Your task to perform on an android device: check out phone information Image 0: 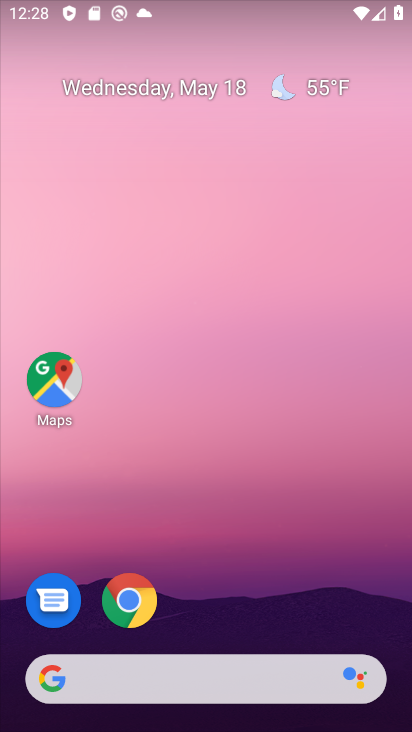
Step 0: drag from (231, 687) to (194, 41)
Your task to perform on an android device: check out phone information Image 1: 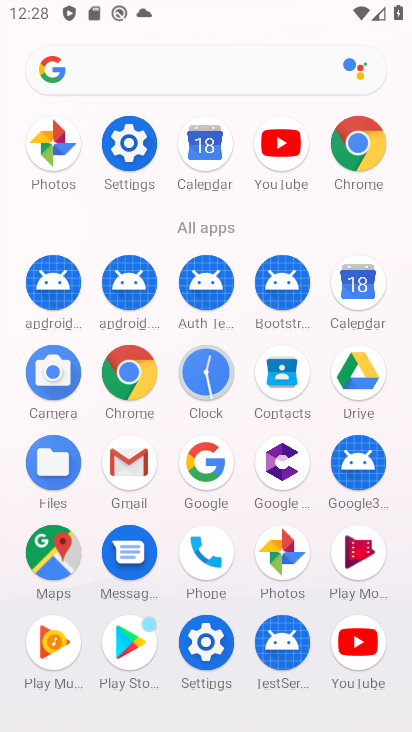
Step 1: click (124, 164)
Your task to perform on an android device: check out phone information Image 2: 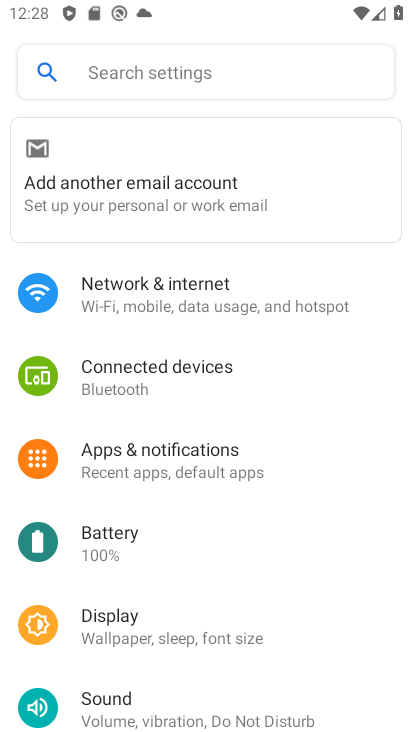
Step 2: drag from (229, 575) to (148, 24)
Your task to perform on an android device: check out phone information Image 3: 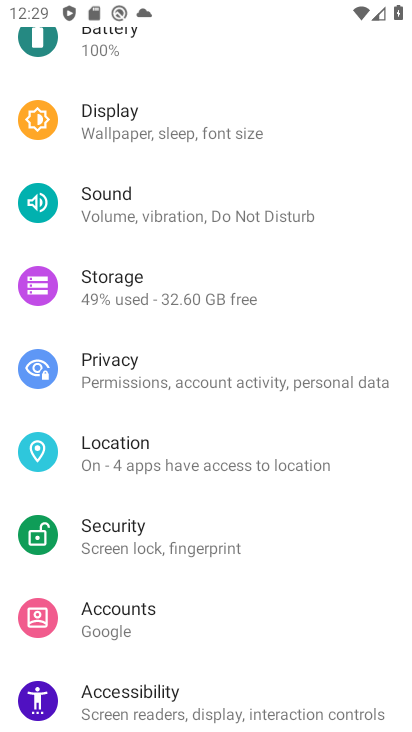
Step 3: drag from (286, 521) to (290, 0)
Your task to perform on an android device: check out phone information Image 4: 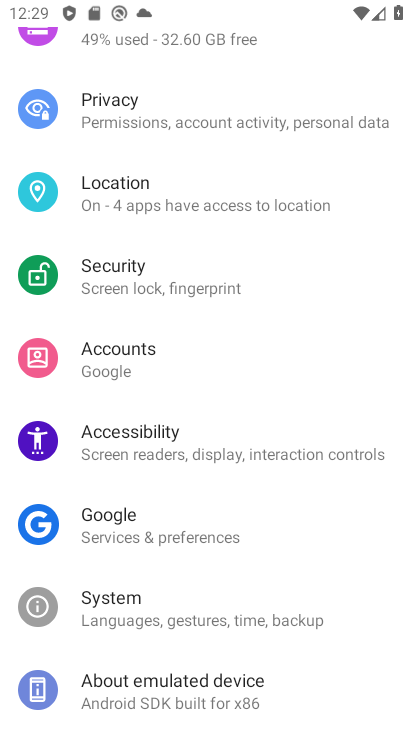
Step 4: drag from (245, 692) to (196, 194)
Your task to perform on an android device: check out phone information Image 5: 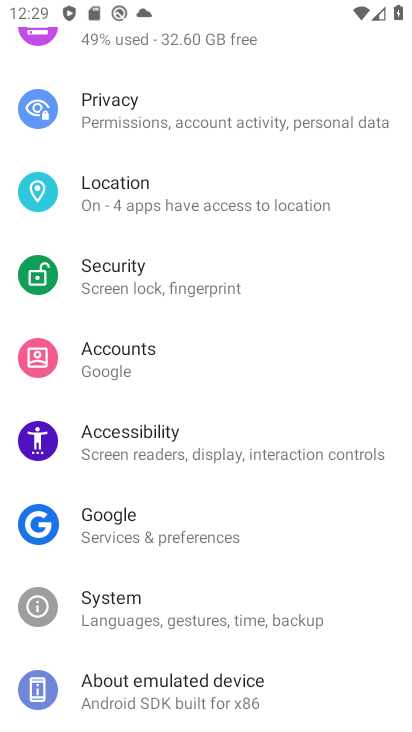
Step 5: click (195, 678)
Your task to perform on an android device: check out phone information Image 6: 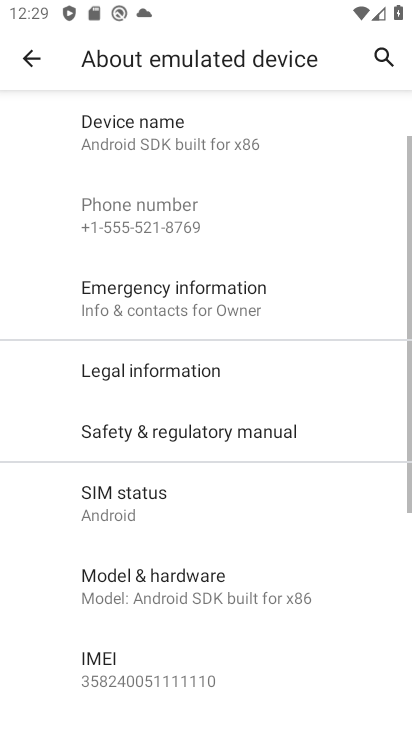
Step 6: task complete